Your task to perform on an android device: empty trash in the gmail app Image 0: 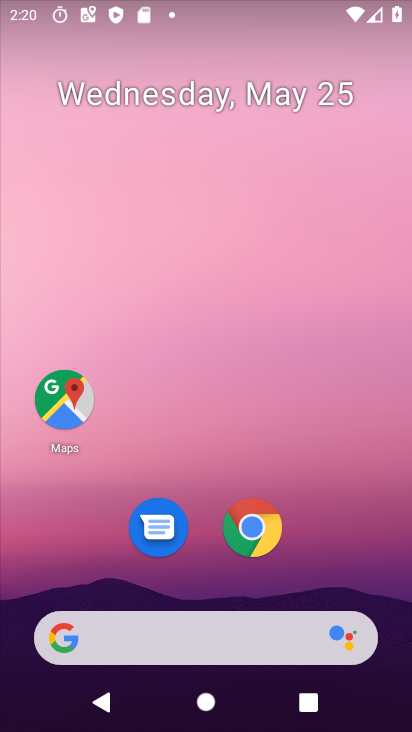
Step 0: drag from (203, 599) to (238, 159)
Your task to perform on an android device: empty trash in the gmail app Image 1: 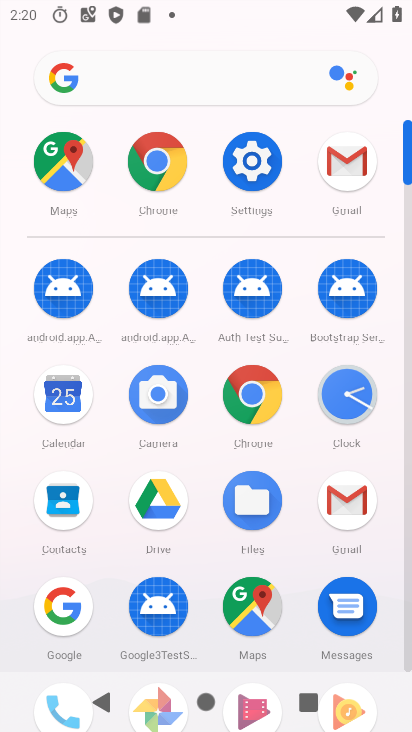
Step 1: click (332, 497)
Your task to perform on an android device: empty trash in the gmail app Image 2: 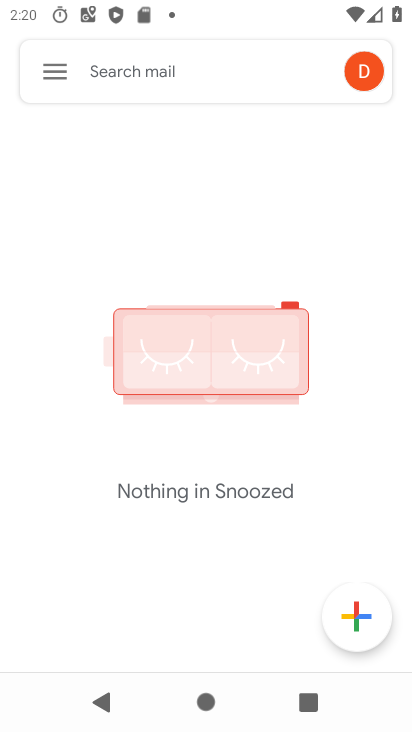
Step 2: click (45, 70)
Your task to perform on an android device: empty trash in the gmail app Image 3: 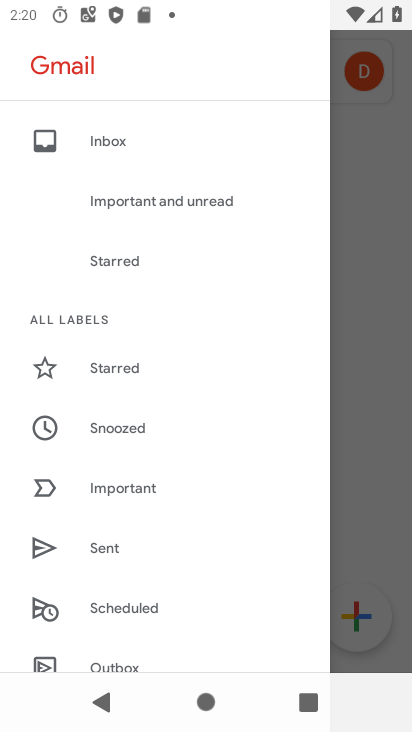
Step 3: drag from (124, 575) to (154, 236)
Your task to perform on an android device: empty trash in the gmail app Image 4: 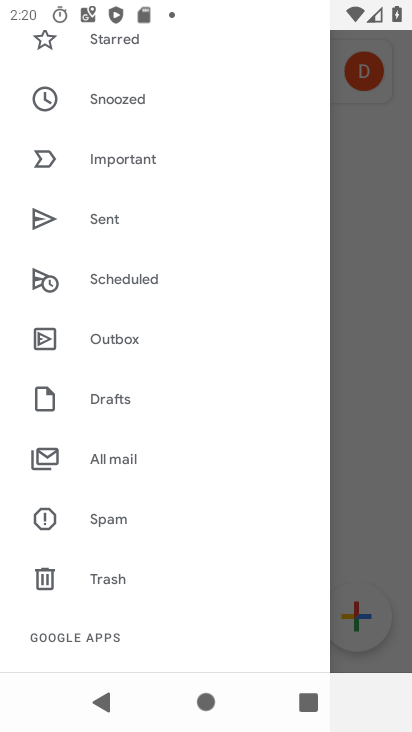
Step 4: click (116, 575)
Your task to perform on an android device: empty trash in the gmail app Image 5: 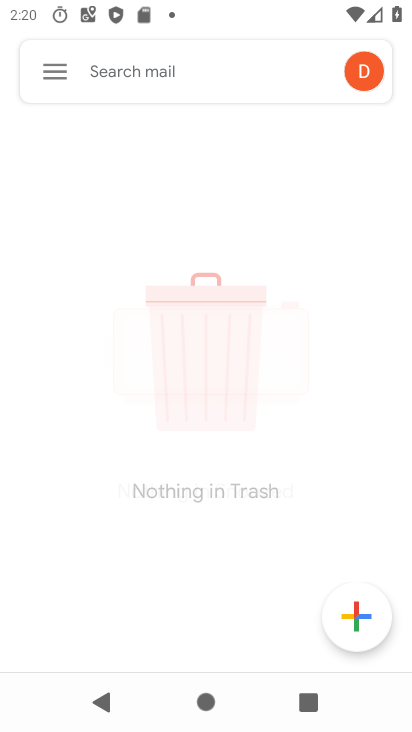
Step 5: task complete